Your task to perform on an android device: Empty the shopping cart on amazon.com. Search for rayovac triple a on amazon.com, select the first entry, add it to the cart, then select checkout. Image 0: 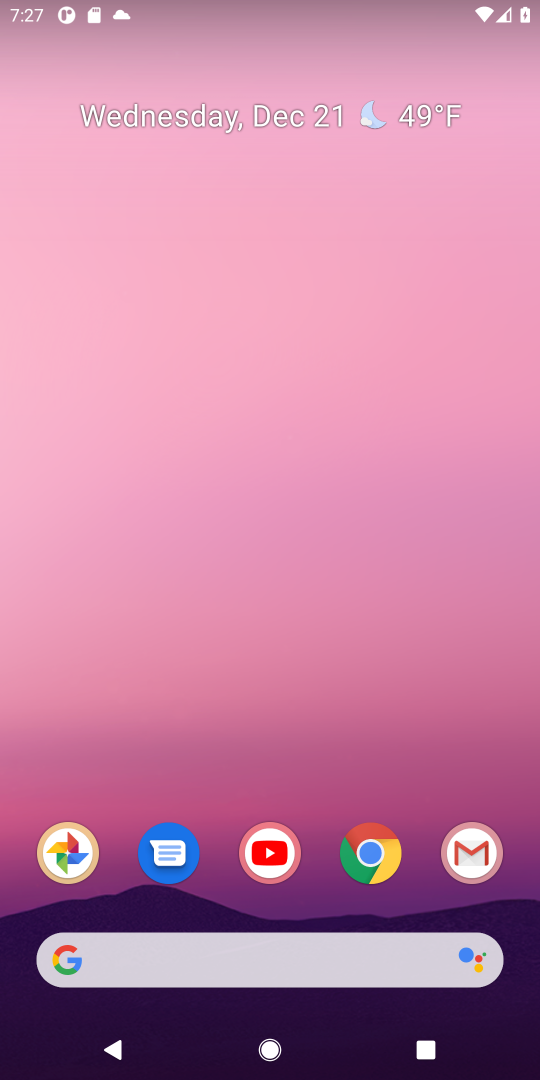
Step 0: click (371, 852)
Your task to perform on an android device: Empty the shopping cart on amazon.com. Search for rayovac triple a on amazon.com, select the first entry, add it to the cart, then select checkout. Image 1: 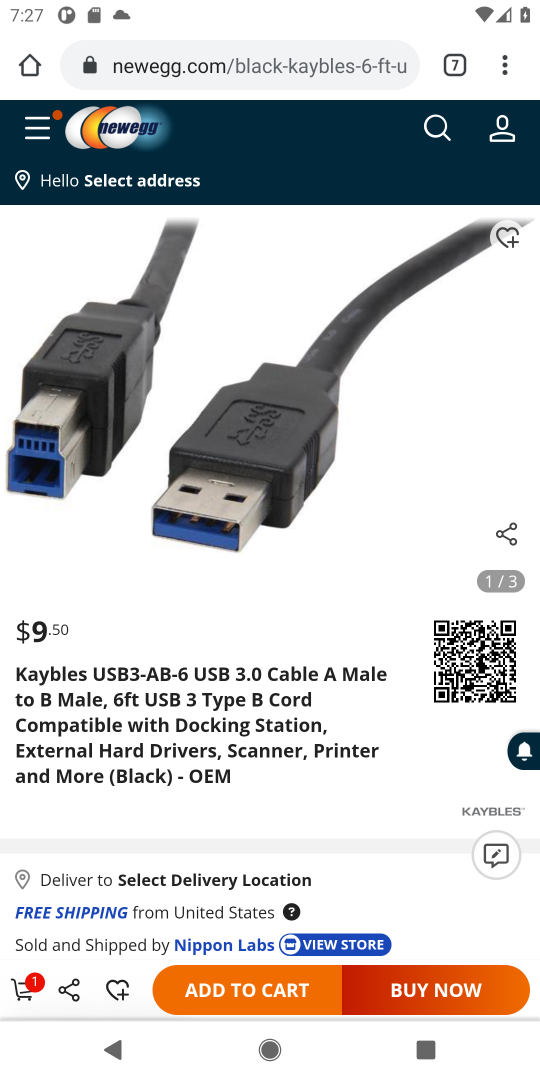
Step 1: click (449, 72)
Your task to perform on an android device: Empty the shopping cart on amazon.com. Search for rayovac triple a on amazon.com, select the first entry, add it to the cart, then select checkout. Image 2: 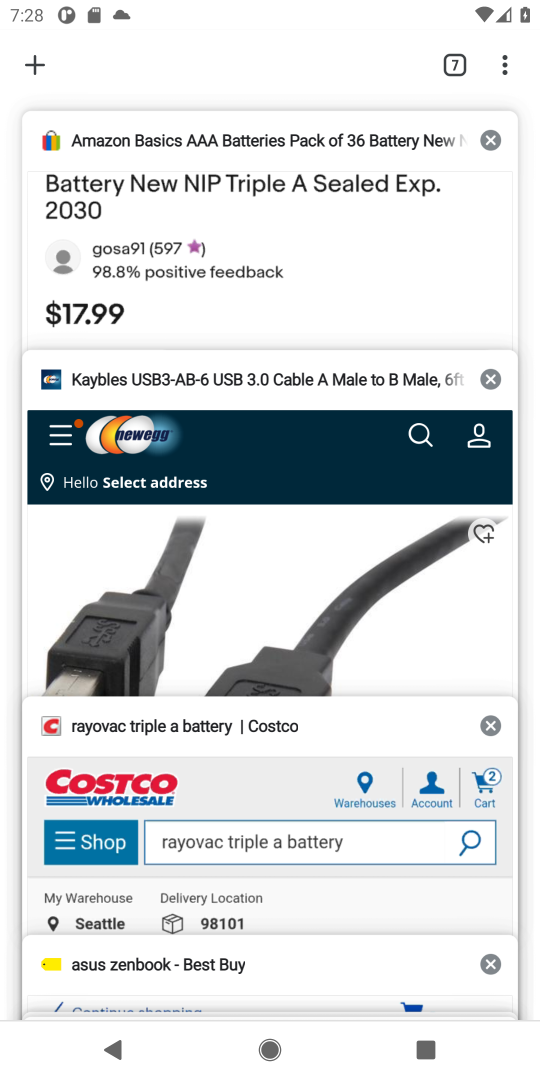
Step 2: drag from (205, 970) to (224, 561)
Your task to perform on an android device: Empty the shopping cart on amazon.com. Search for rayovac triple a on amazon.com, select the first entry, add it to the cart, then select checkout. Image 3: 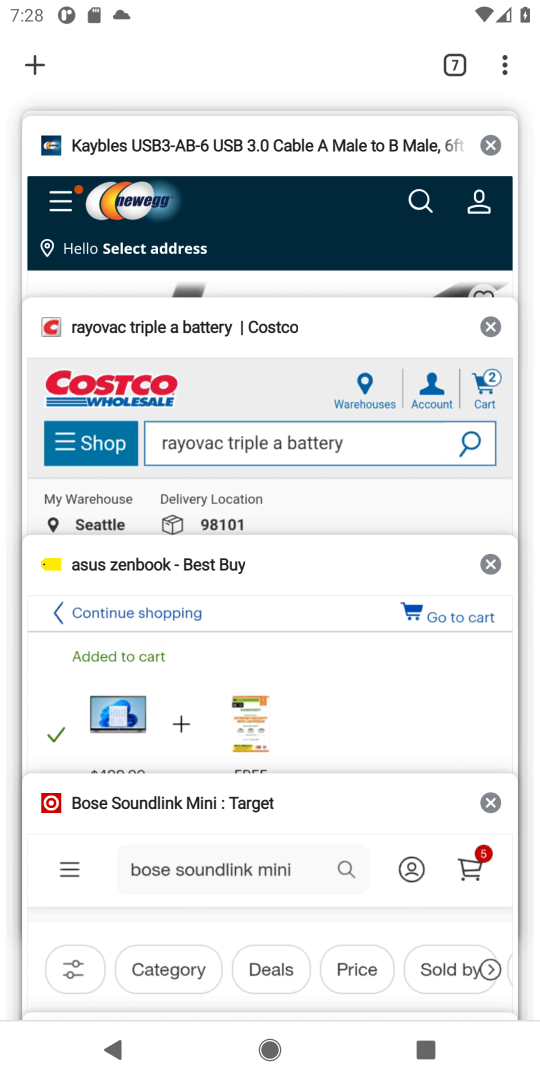
Step 3: drag from (217, 885) to (376, 489)
Your task to perform on an android device: Empty the shopping cart on amazon.com. Search for rayovac triple a on amazon.com, select the first entry, add it to the cart, then select checkout. Image 4: 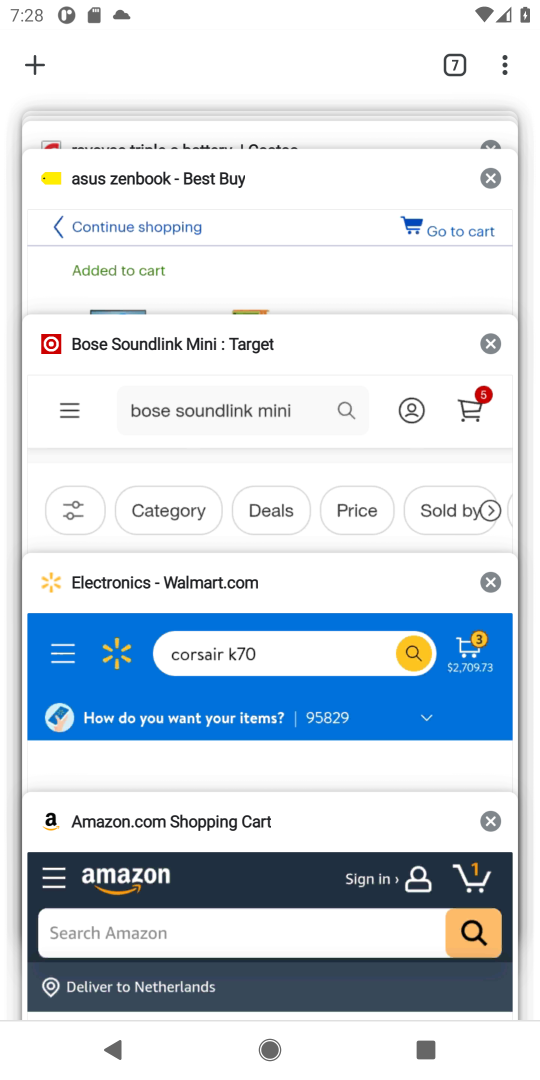
Step 4: click (226, 885)
Your task to perform on an android device: Empty the shopping cart on amazon.com. Search for rayovac triple a on amazon.com, select the first entry, add it to the cart, then select checkout. Image 5: 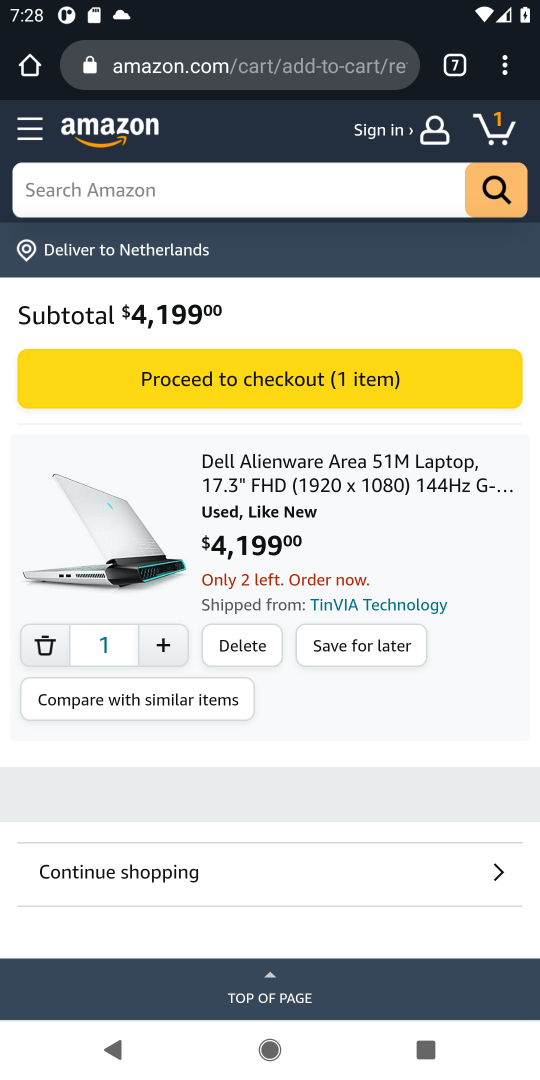
Step 5: click (227, 645)
Your task to perform on an android device: Empty the shopping cart on amazon.com. Search for rayovac triple a on amazon.com, select the first entry, add it to the cart, then select checkout. Image 6: 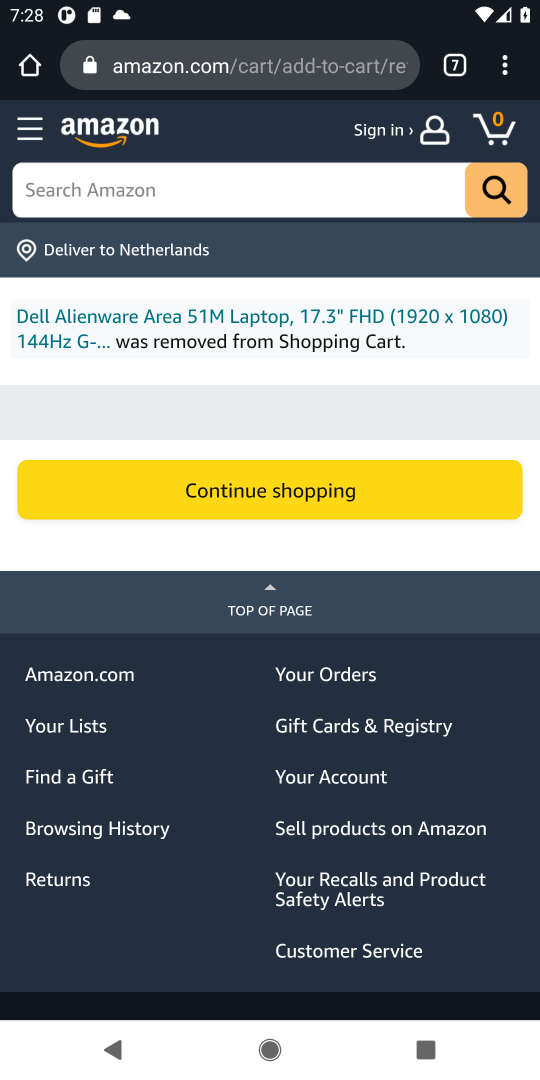
Step 6: click (187, 195)
Your task to perform on an android device: Empty the shopping cart on amazon.com. Search for rayovac triple a on amazon.com, select the first entry, add it to the cart, then select checkout. Image 7: 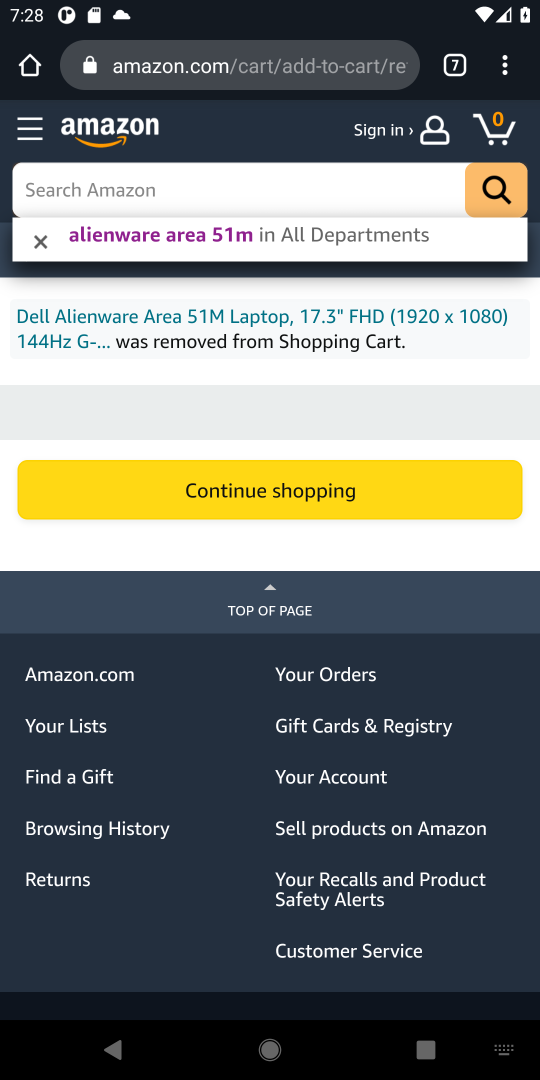
Step 7: type "rayovac triple a battery"
Your task to perform on an android device: Empty the shopping cart on amazon.com. Search for rayovac triple a on amazon.com, select the first entry, add it to the cart, then select checkout. Image 8: 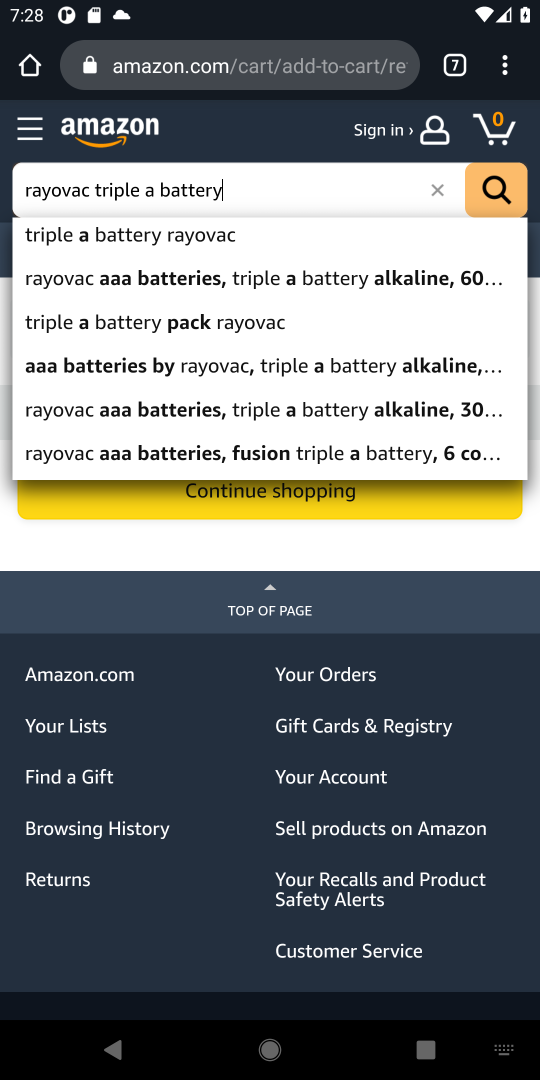
Step 8: click (498, 191)
Your task to perform on an android device: Empty the shopping cart on amazon.com. Search for rayovac triple a on amazon.com, select the first entry, add it to the cart, then select checkout. Image 9: 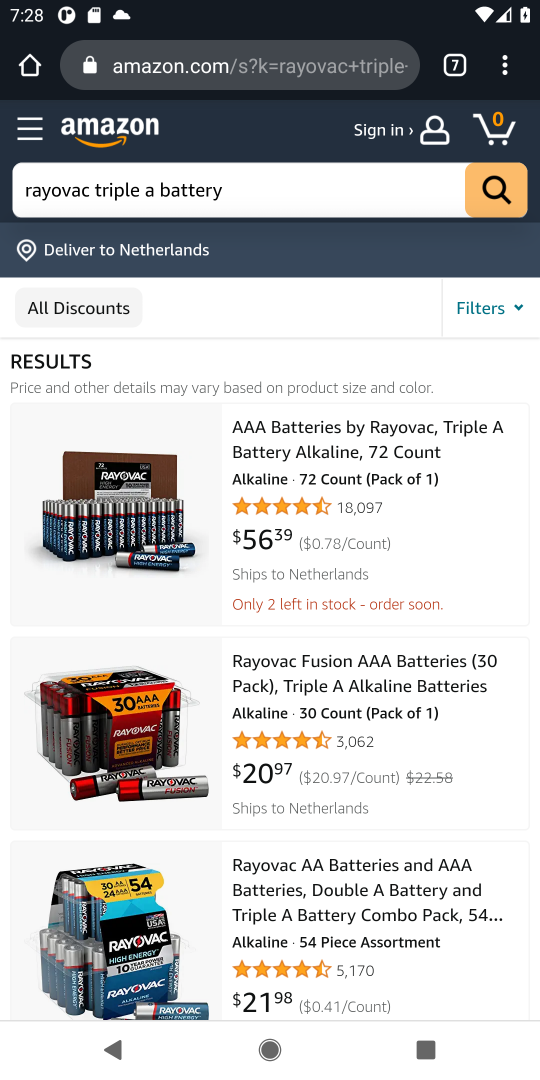
Step 9: click (282, 447)
Your task to perform on an android device: Empty the shopping cart on amazon.com. Search for rayovac triple a on amazon.com, select the first entry, add it to the cart, then select checkout. Image 10: 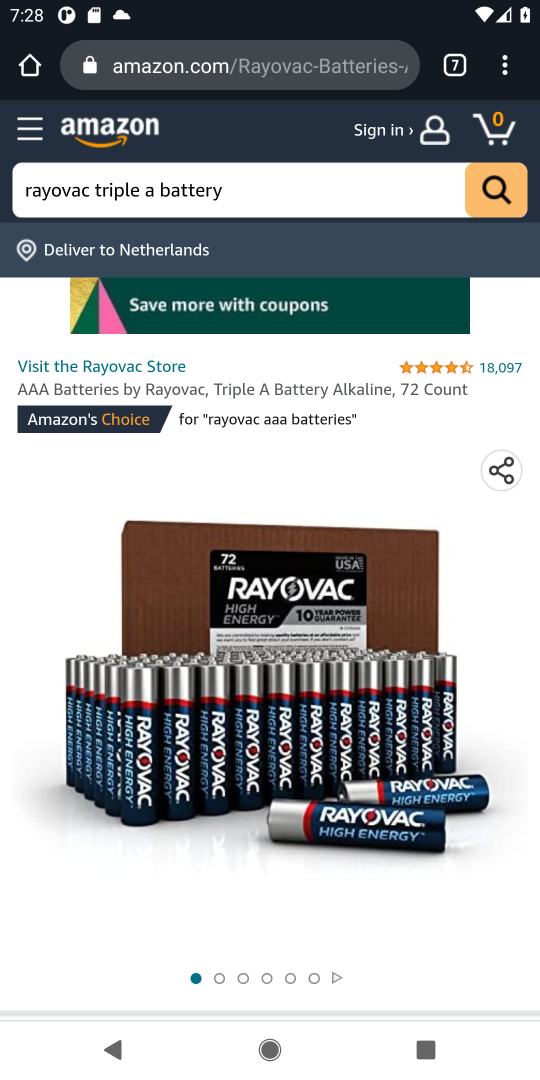
Step 10: drag from (156, 890) to (191, 268)
Your task to perform on an android device: Empty the shopping cart on amazon.com. Search for rayovac triple a on amazon.com, select the first entry, add it to the cart, then select checkout. Image 11: 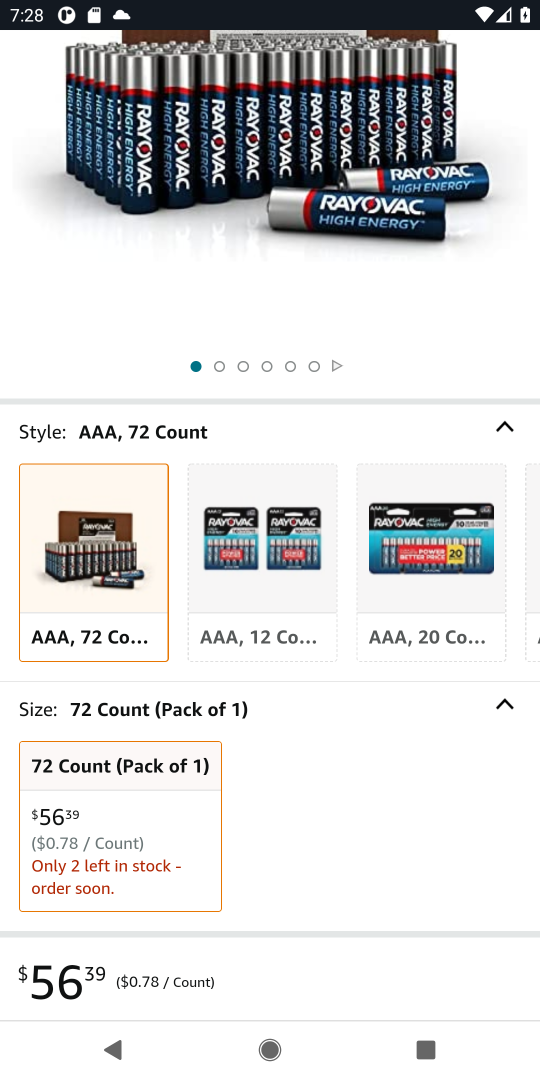
Step 11: drag from (290, 851) to (316, 276)
Your task to perform on an android device: Empty the shopping cart on amazon.com. Search for rayovac triple a on amazon.com, select the first entry, add it to the cart, then select checkout. Image 12: 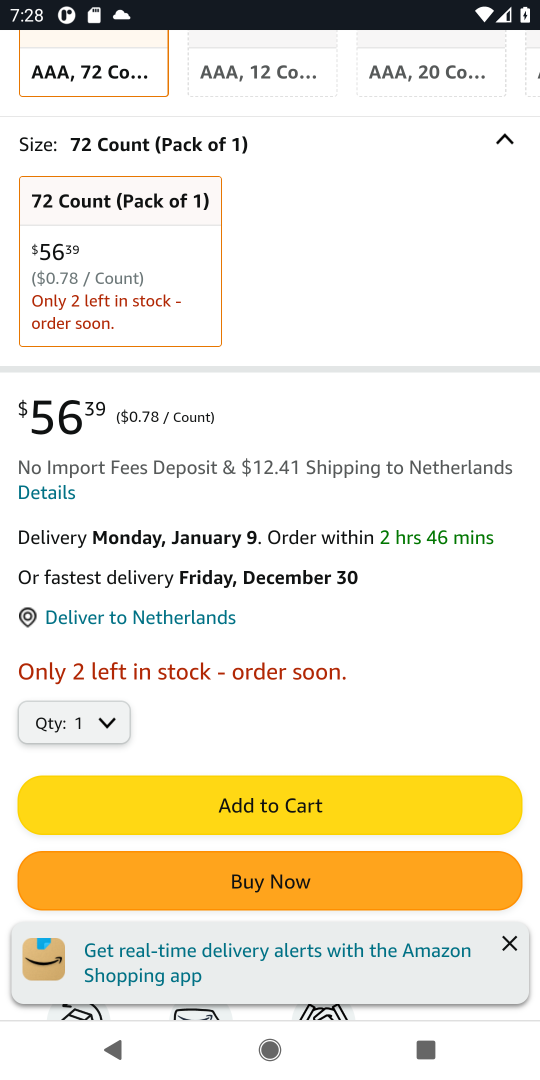
Step 12: click (281, 811)
Your task to perform on an android device: Empty the shopping cart on amazon.com. Search for rayovac triple a on amazon.com, select the first entry, add it to the cart, then select checkout. Image 13: 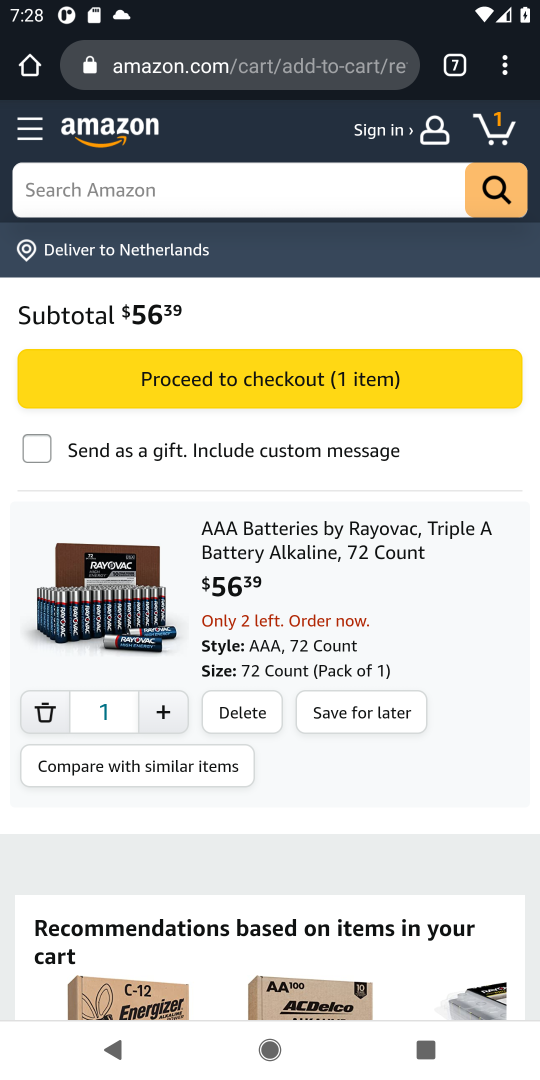
Step 13: task complete